Your task to perform on an android device: Empty the shopping cart on ebay.com. Image 0: 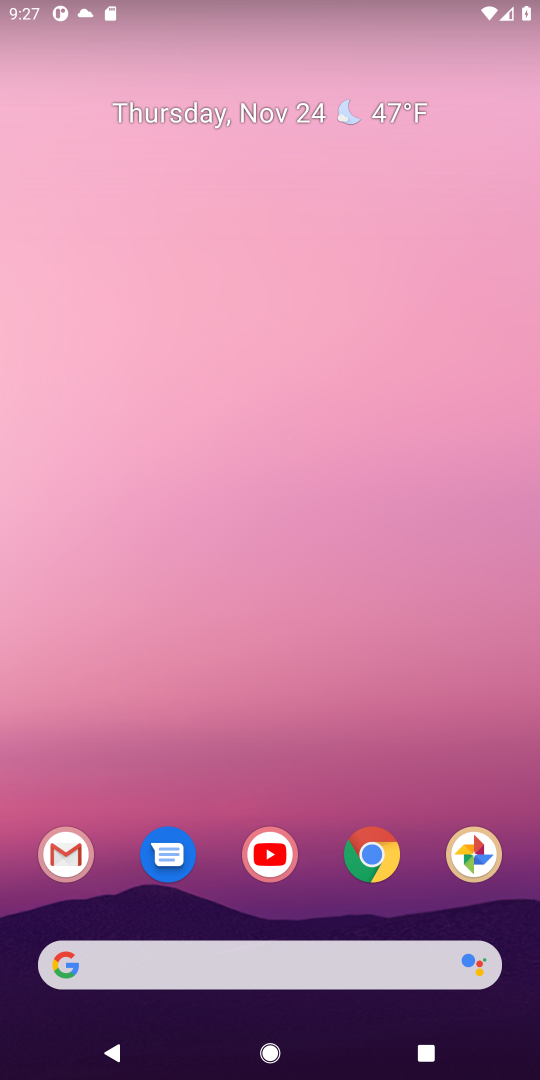
Step 0: click (373, 868)
Your task to perform on an android device: Empty the shopping cart on ebay.com. Image 1: 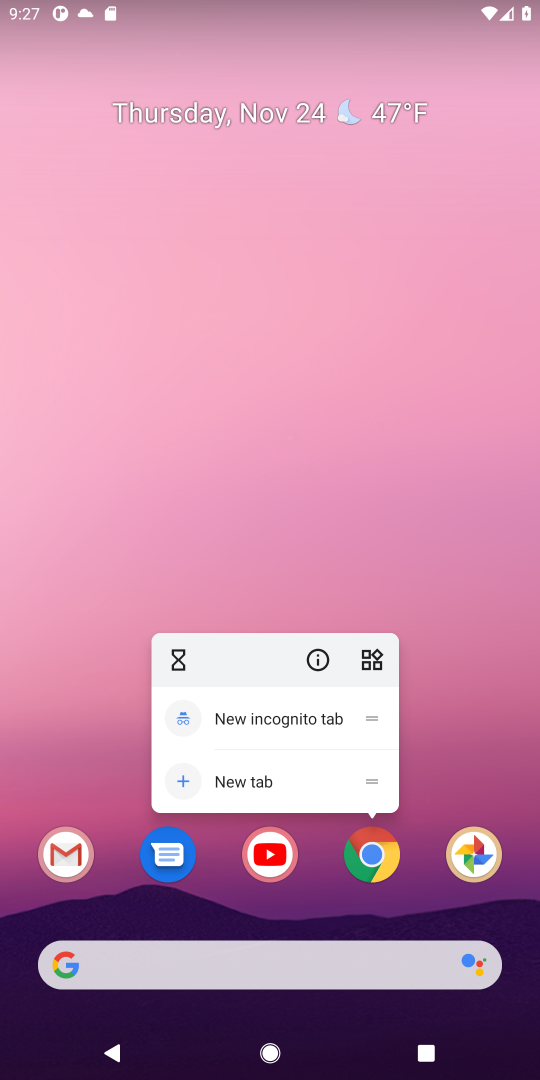
Step 1: click (383, 856)
Your task to perform on an android device: Empty the shopping cart on ebay.com. Image 2: 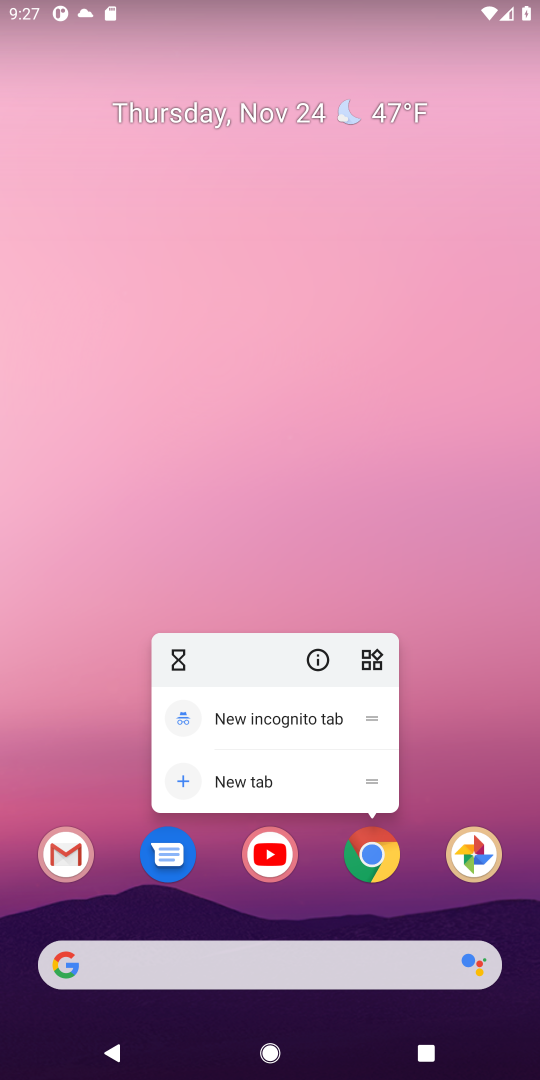
Step 2: click (374, 868)
Your task to perform on an android device: Empty the shopping cart on ebay.com. Image 3: 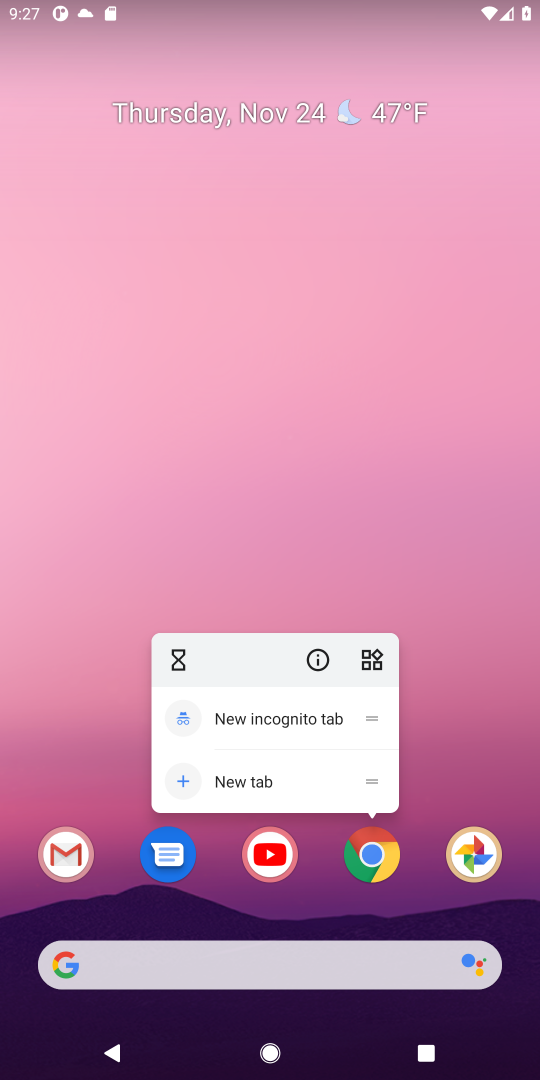
Step 3: click (478, 692)
Your task to perform on an android device: Empty the shopping cart on ebay.com. Image 4: 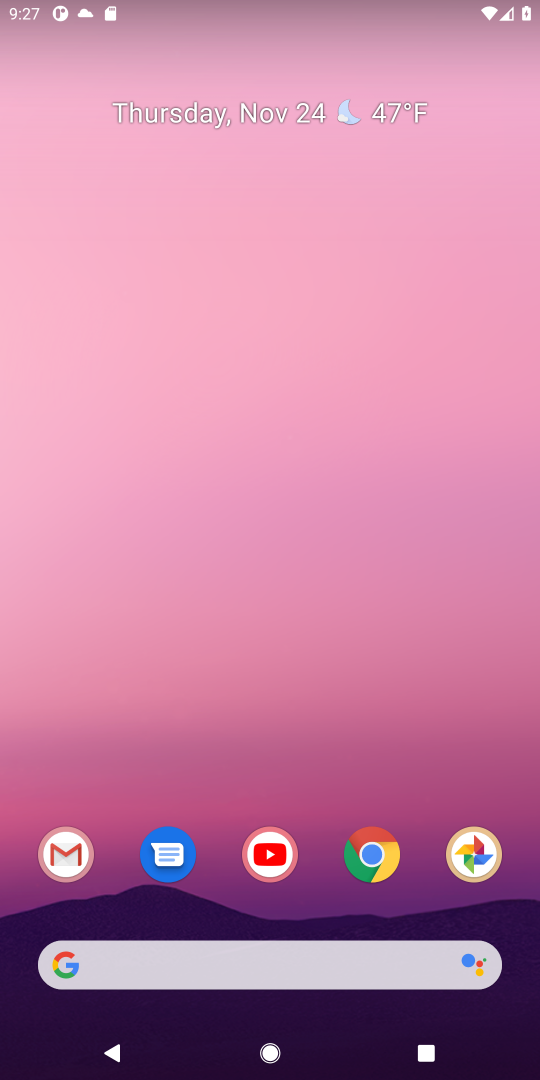
Step 4: click (378, 856)
Your task to perform on an android device: Empty the shopping cart on ebay.com. Image 5: 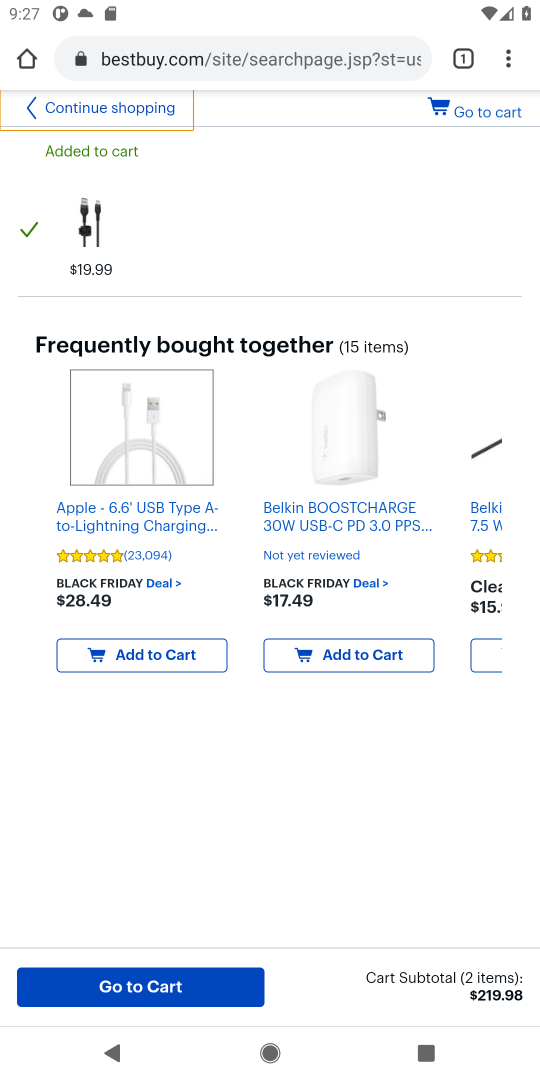
Step 5: click (193, 59)
Your task to perform on an android device: Empty the shopping cart on ebay.com. Image 6: 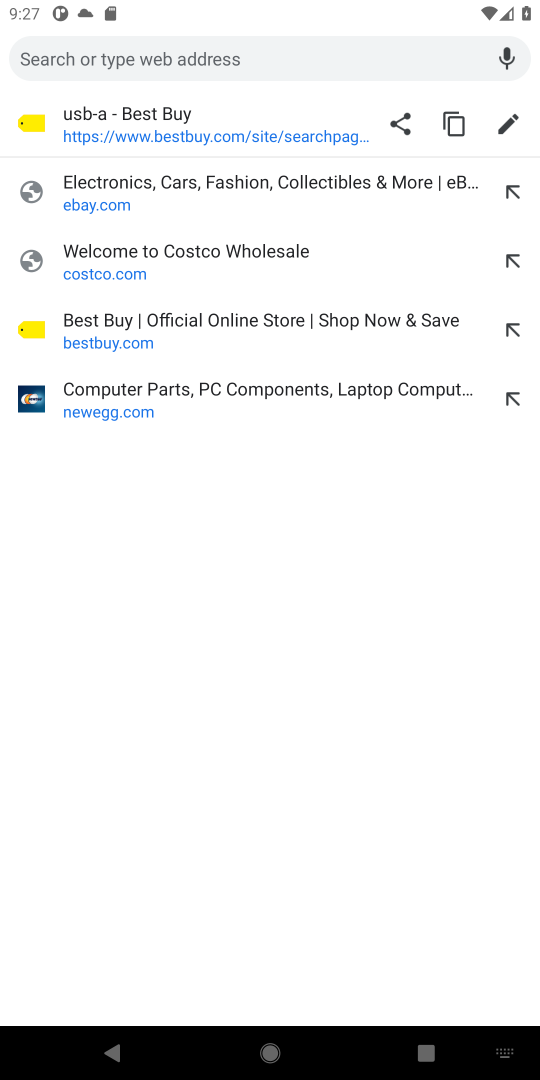
Step 6: click (91, 194)
Your task to perform on an android device: Empty the shopping cart on ebay.com. Image 7: 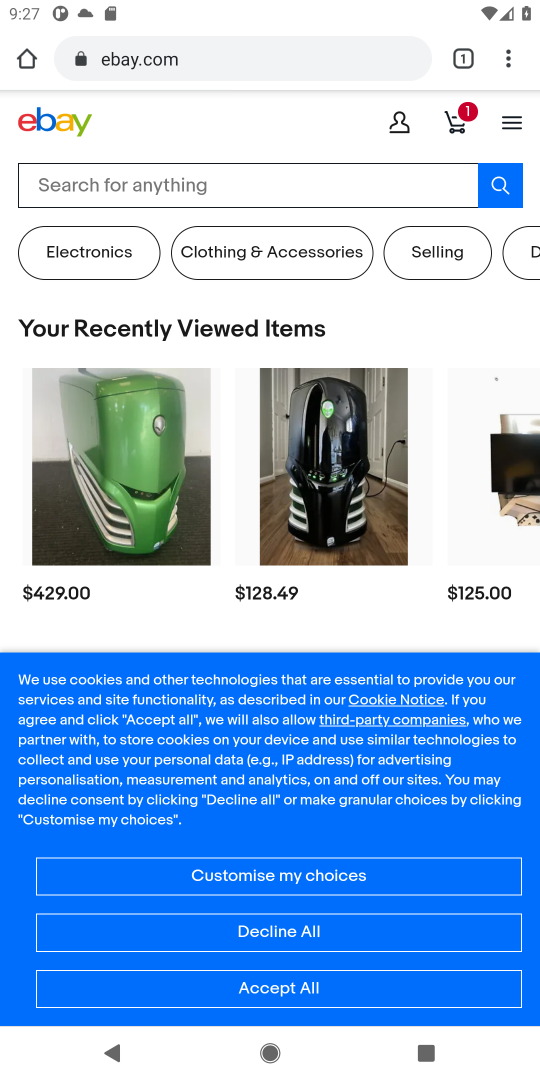
Step 7: click (464, 125)
Your task to perform on an android device: Empty the shopping cart on ebay.com. Image 8: 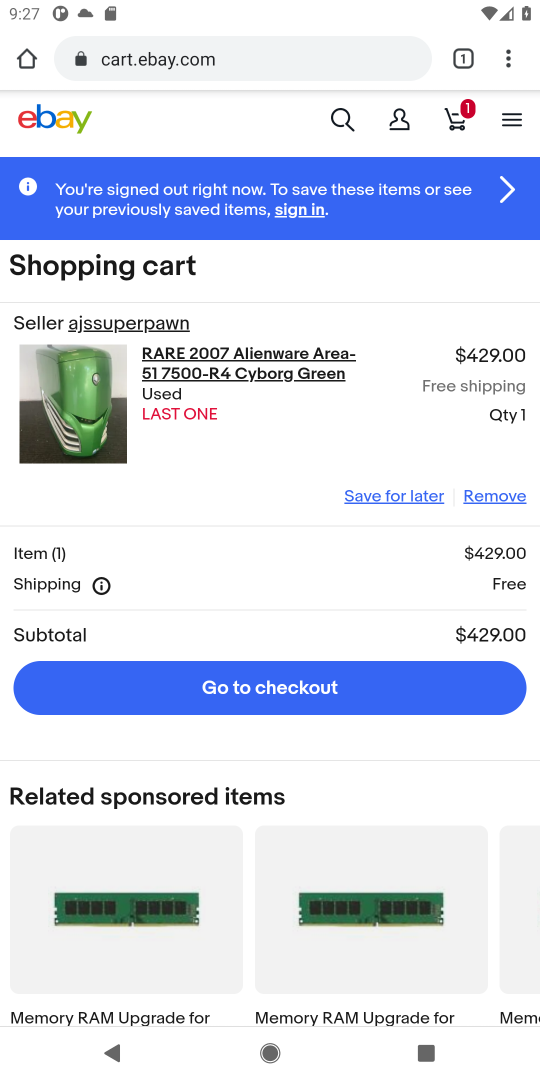
Step 8: click (481, 495)
Your task to perform on an android device: Empty the shopping cart on ebay.com. Image 9: 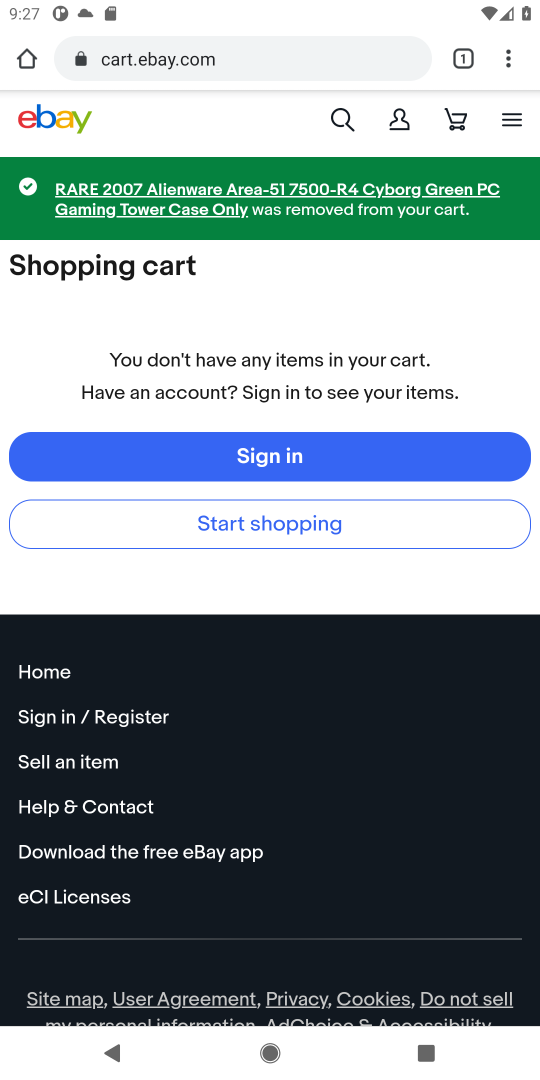
Step 9: task complete